Your task to perform on an android device: turn vacation reply on in the gmail app Image 0: 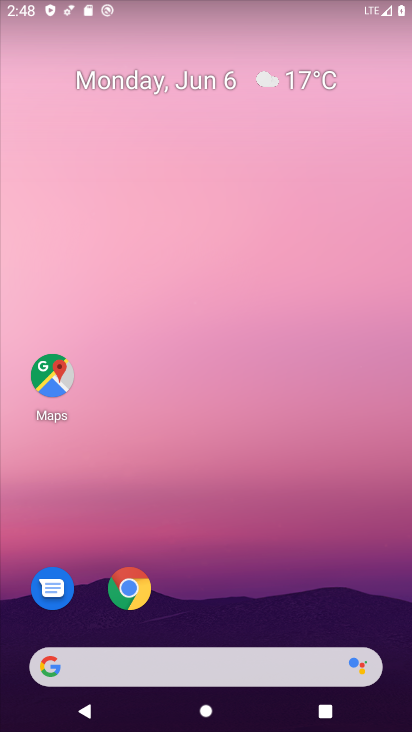
Step 0: drag from (171, 657) to (213, 158)
Your task to perform on an android device: turn vacation reply on in the gmail app Image 1: 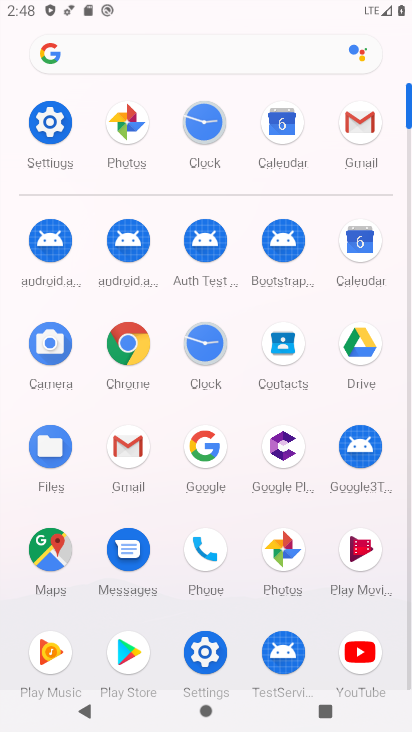
Step 1: click (124, 442)
Your task to perform on an android device: turn vacation reply on in the gmail app Image 2: 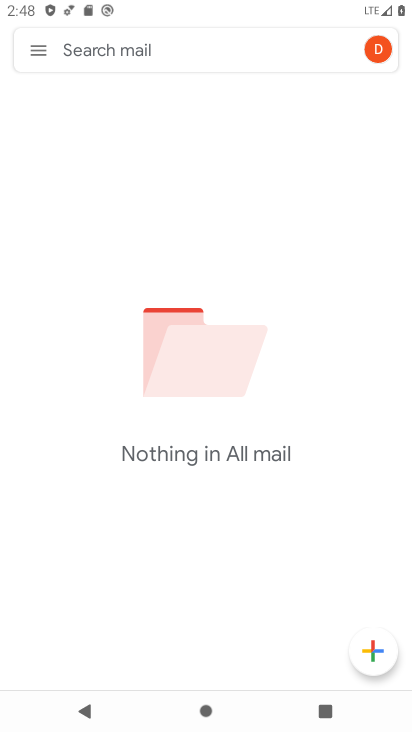
Step 2: click (41, 55)
Your task to perform on an android device: turn vacation reply on in the gmail app Image 3: 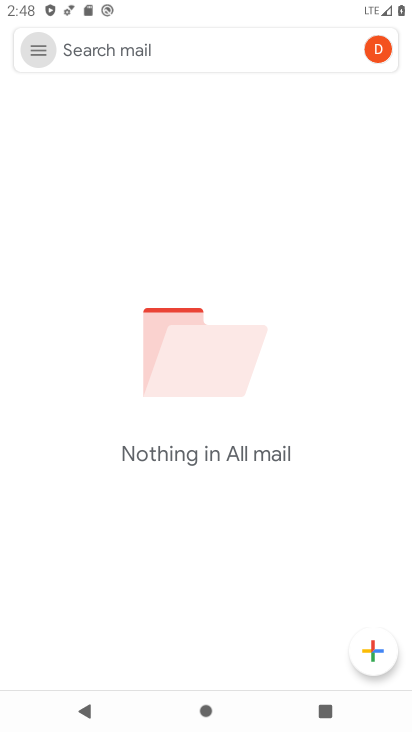
Step 3: click (41, 55)
Your task to perform on an android device: turn vacation reply on in the gmail app Image 4: 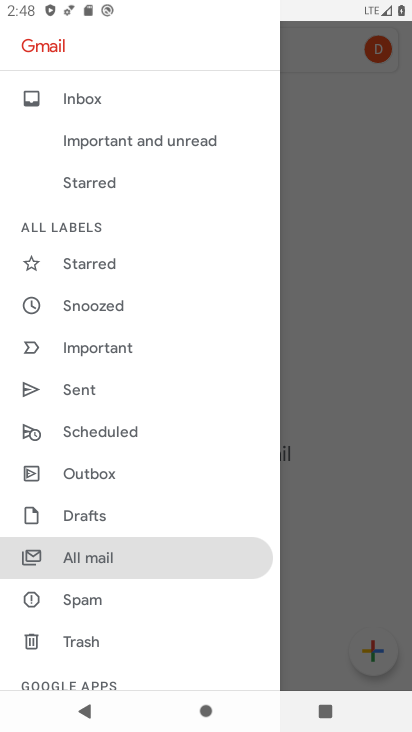
Step 4: drag from (130, 604) to (105, 221)
Your task to perform on an android device: turn vacation reply on in the gmail app Image 5: 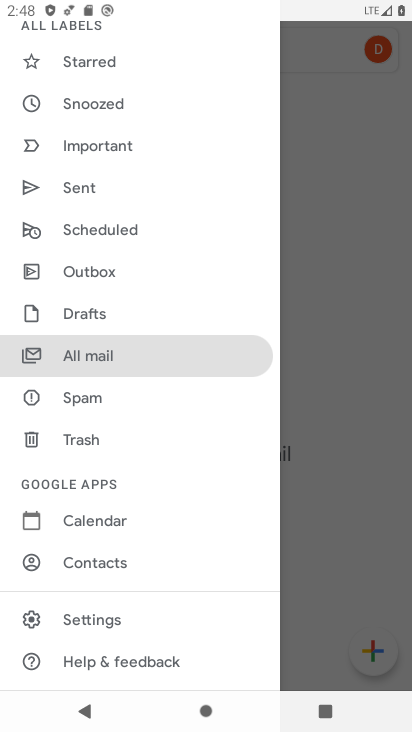
Step 5: click (110, 617)
Your task to perform on an android device: turn vacation reply on in the gmail app Image 6: 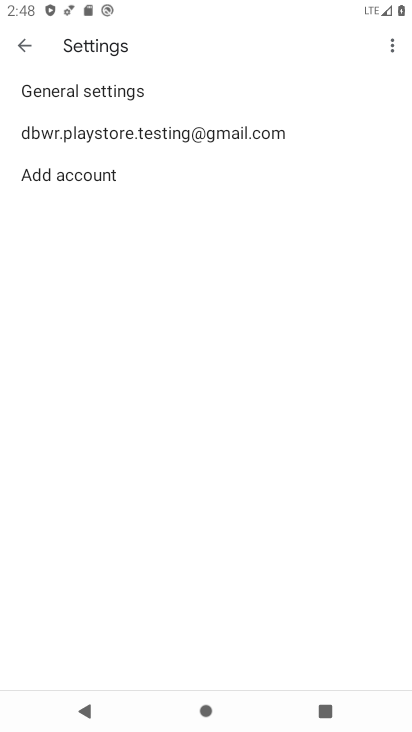
Step 6: click (195, 135)
Your task to perform on an android device: turn vacation reply on in the gmail app Image 7: 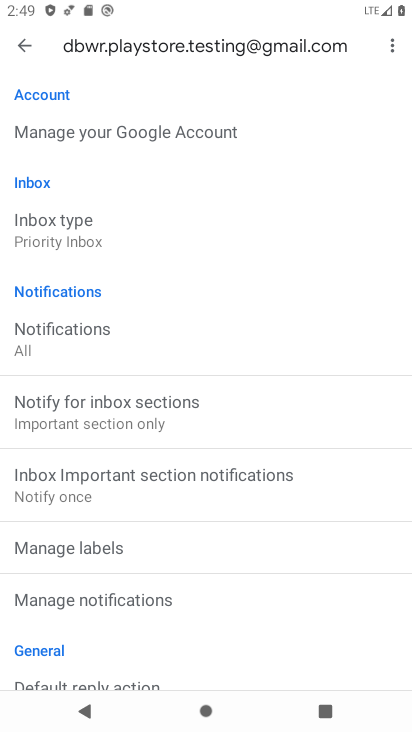
Step 7: drag from (155, 558) to (171, 265)
Your task to perform on an android device: turn vacation reply on in the gmail app Image 8: 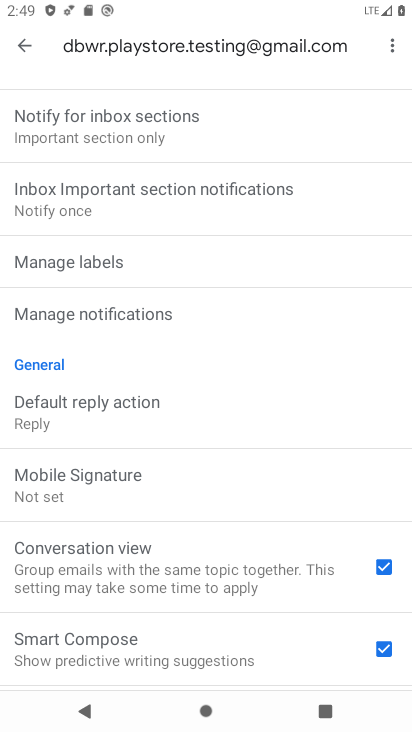
Step 8: drag from (150, 512) to (110, 197)
Your task to perform on an android device: turn vacation reply on in the gmail app Image 9: 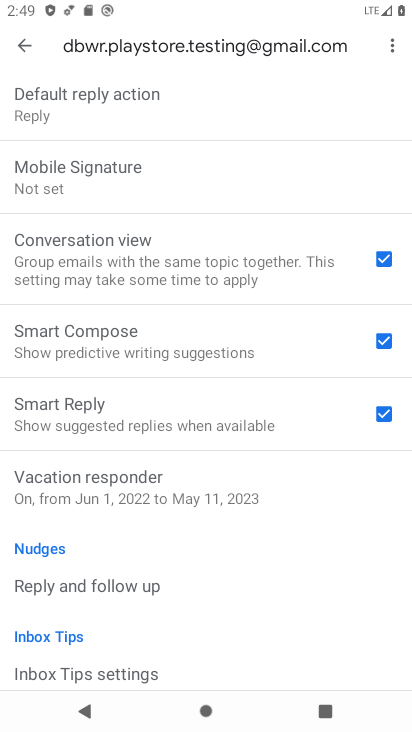
Step 9: click (212, 490)
Your task to perform on an android device: turn vacation reply on in the gmail app Image 10: 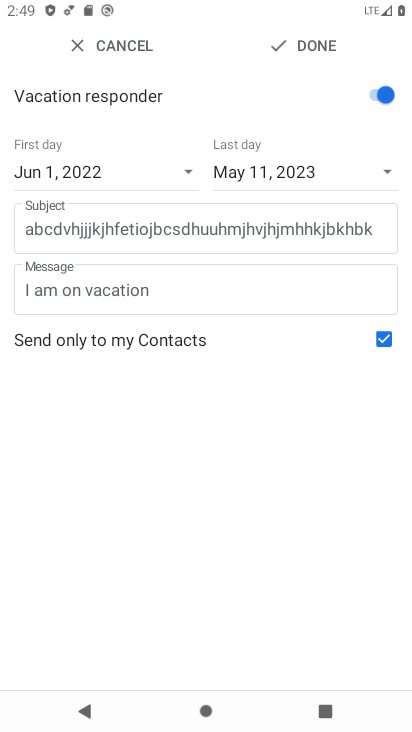
Step 10: click (311, 52)
Your task to perform on an android device: turn vacation reply on in the gmail app Image 11: 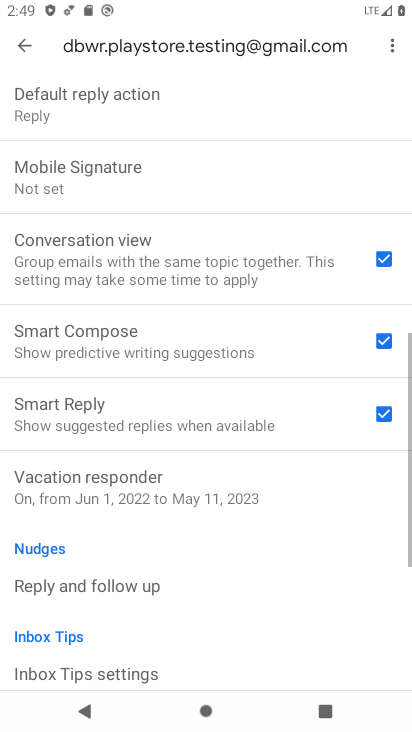
Step 11: task complete